Your task to perform on an android device: open device folders in google photos Image 0: 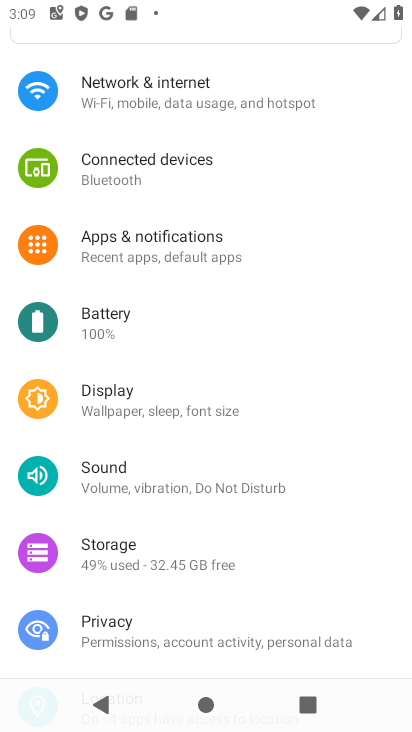
Step 0: press home button
Your task to perform on an android device: open device folders in google photos Image 1: 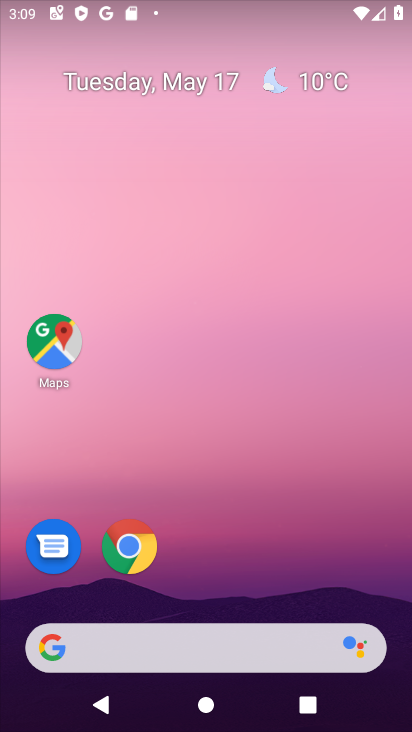
Step 1: drag from (189, 586) to (291, 119)
Your task to perform on an android device: open device folders in google photos Image 2: 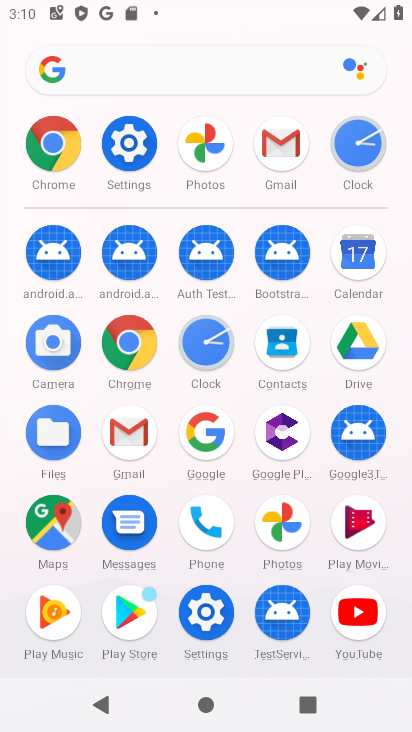
Step 2: click (282, 522)
Your task to perform on an android device: open device folders in google photos Image 3: 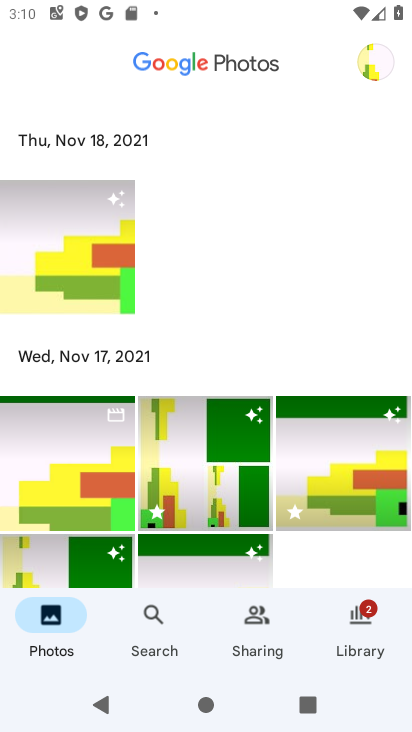
Step 3: click (378, 65)
Your task to perform on an android device: open device folders in google photos Image 4: 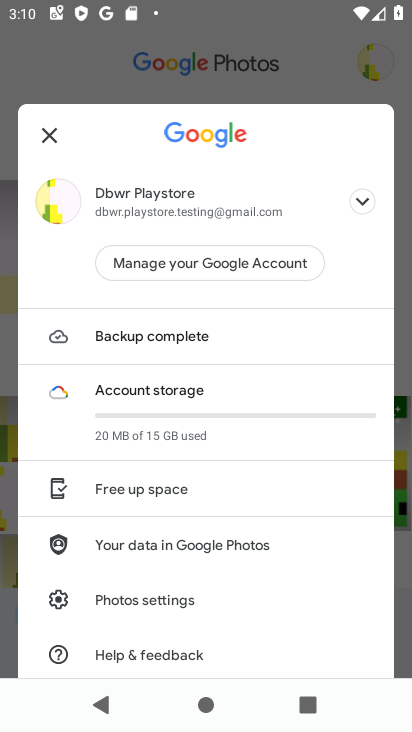
Step 4: click (368, 67)
Your task to perform on an android device: open device folders in google photos Image 5: 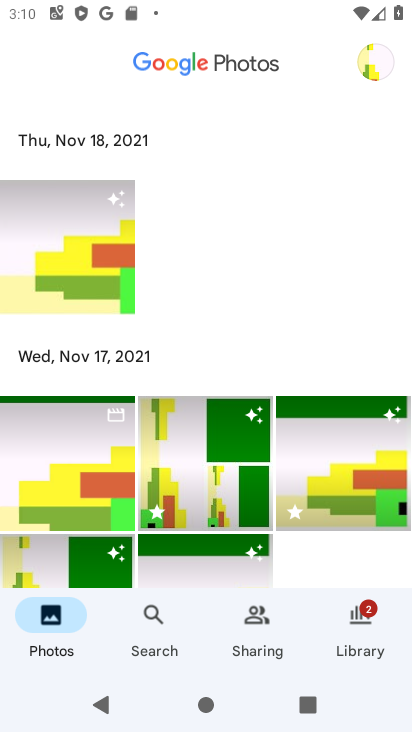
Step 5: click (374, 65)
Your task to perform on an android device: open device folders in google photos Image 6: 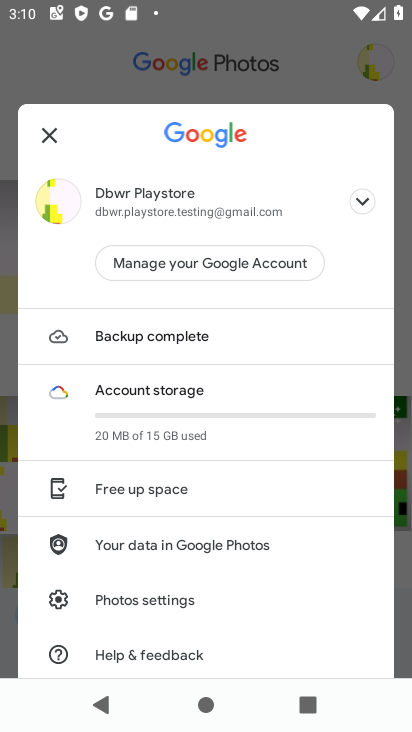
Step 6: drag from (183, 561) to (214, 236)
Your task to perform on an android device: open device folders in google photos Image 7: 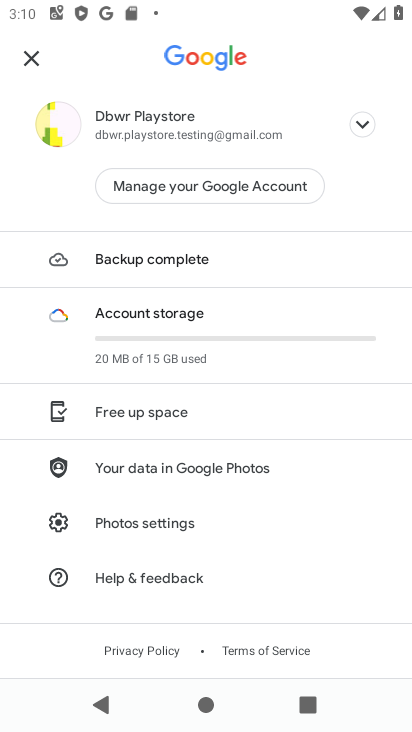
Step 7: click (181, 522)
Your task to perform on an android device: open device folders in google photos Image 8: 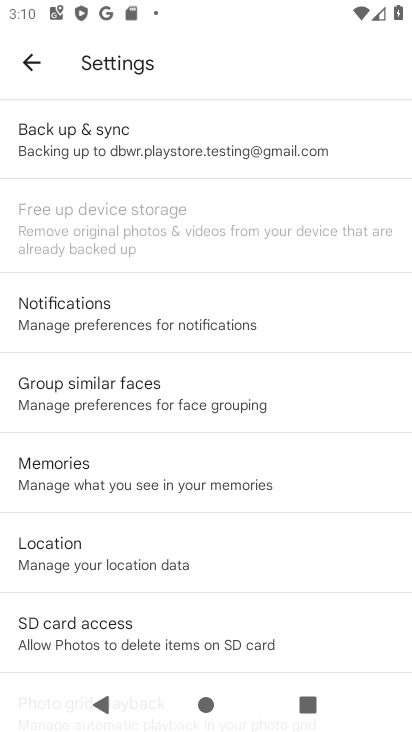
Step 8: task complete